Your task to perform on an android device: Go to Reddit.com Image 0: 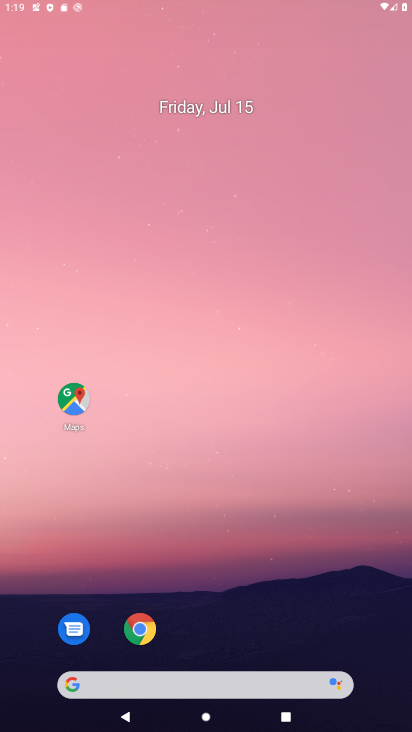
Step 0: drag from (251, 607) to (233, 218)
Your task to perform on an android device: Go to Reddit.com Image 1: 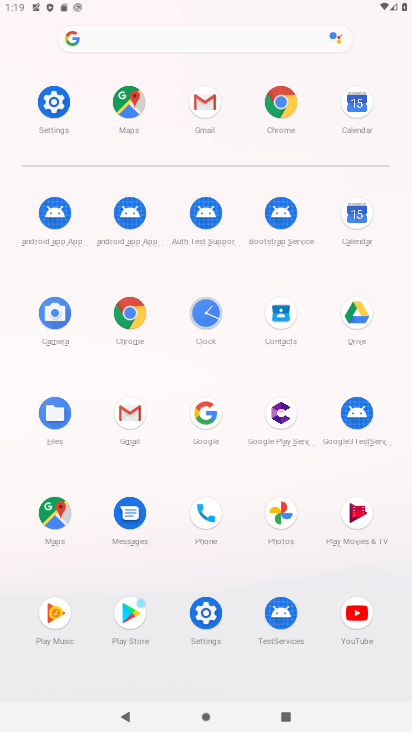
Step 1: click (273, 100)
Your task to perform on an android device: Go to Reddit.com Image 2: 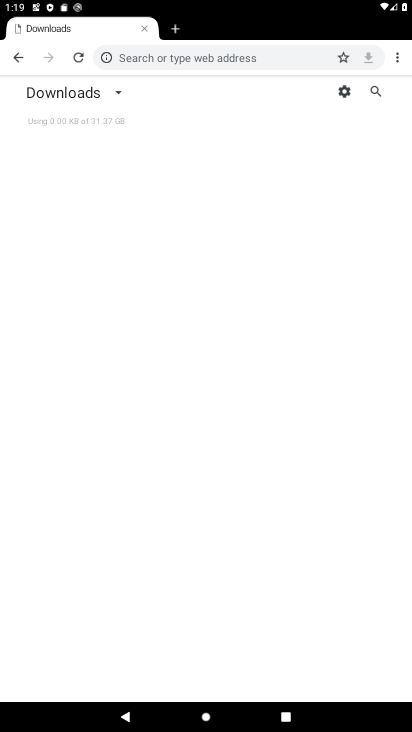
Step 2: click (220, 58)
Your task to perform on an android device: Go to Reddit.com Image 3: 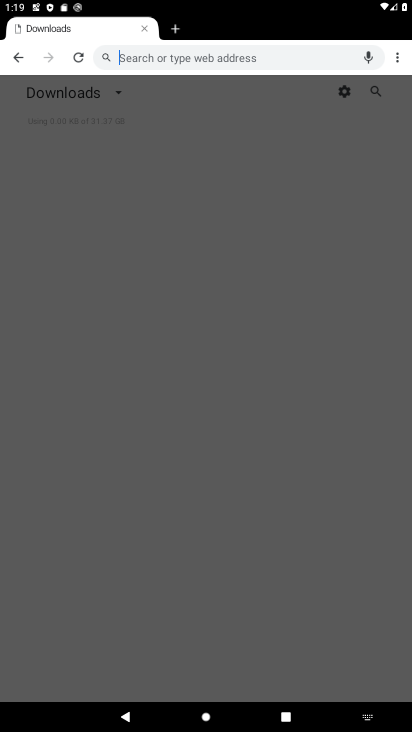
Step 3: type "reddit.com"
Your task to perform on an android device: Go to Reddit.com Image 4: 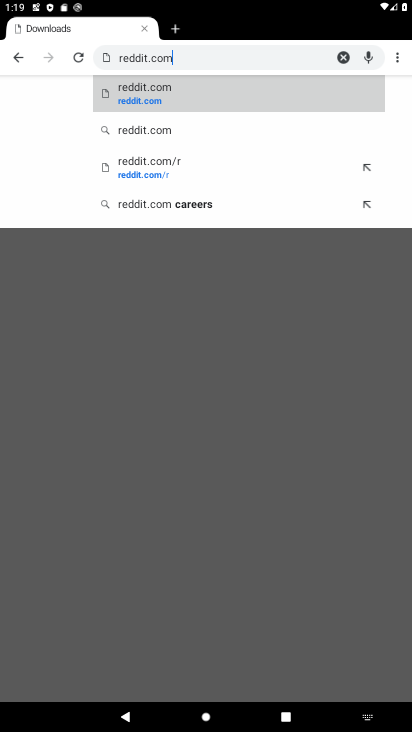
Step 4: click (160, 94)
Your task to perform on an android device: Go to Reddit.com Image 5: 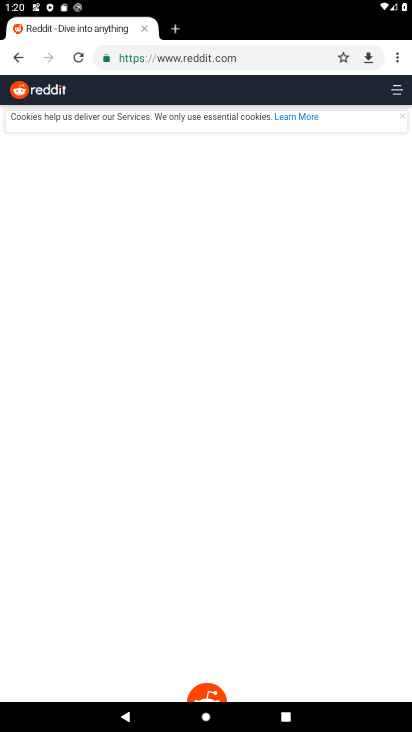
Step 5: task complete